Your task to perform on an android device: Open Google Chrome and click the shortcut for Amazon.com Image 0: 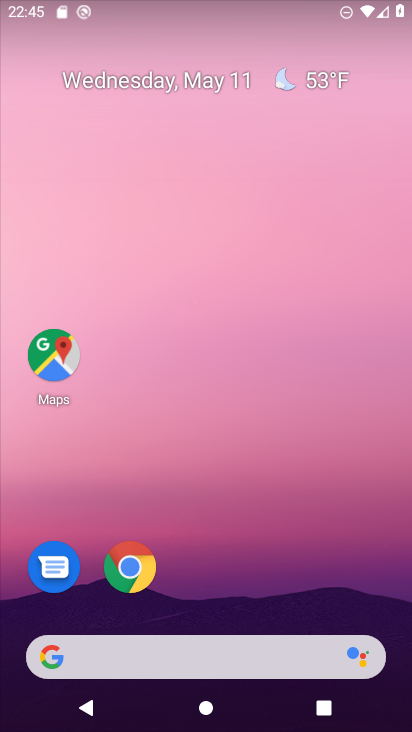
Step 0: click (135, 564)
Your task to perform on an android device: Open Google Chrome and click the shortcut for Amazon.com Image 1: 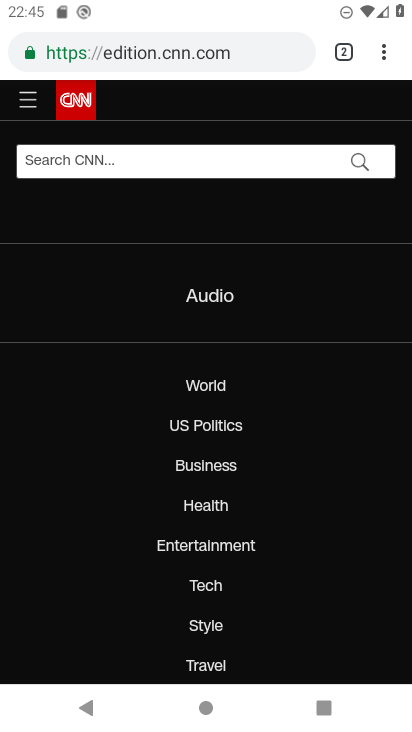
Step 1: click (386, 55)
Your task to perform on an android device: Open Google Chrome and click the shortcut for Amazon.com Image 2: 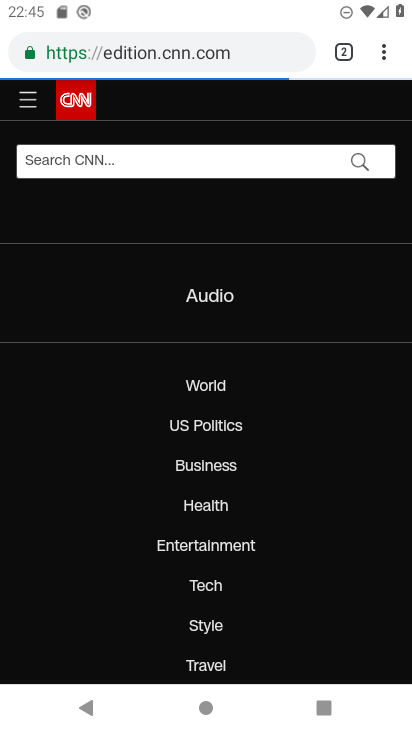
Step 2: click (192, 174)
Your task to perform on an android device: Open Google Chrome and click the shortcut for Amazon.com Image 3: 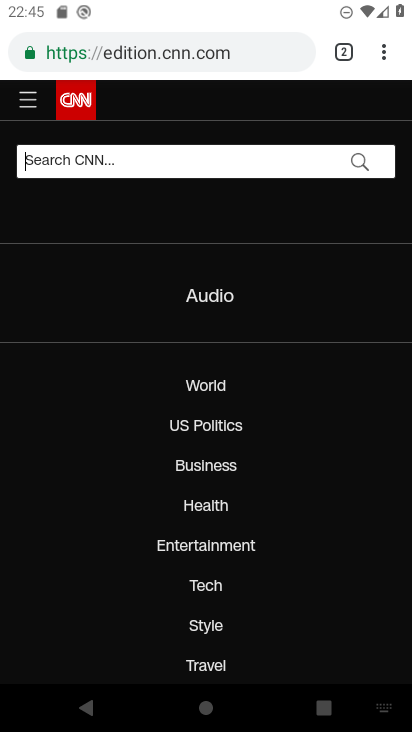
Step 3: click (383, 42)
Your task to perform on an android device: Open Google Chrome and click the shortcut for Amazon.com Image 4: 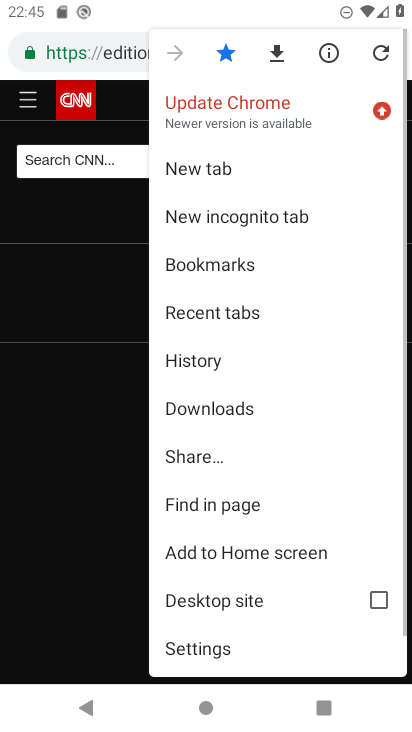
Step 4: click (220, 180)
Your task to perform on an android device: Open Google Chrome and click the shortcut for Amazon.com Image 5: 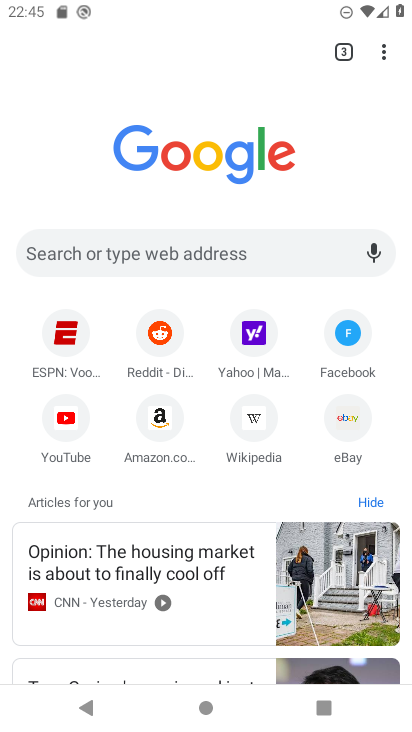
Step 5: click (165, 423)
Your task to perform on an android device: Open Google Chrome and click the shortcut for Amazon.com Image 6: 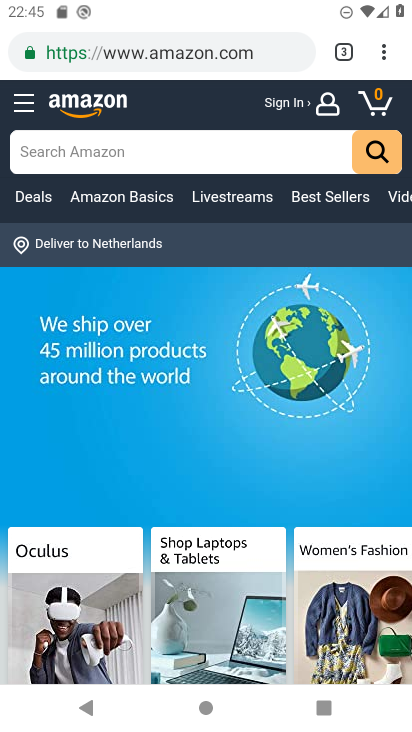
Step 6: task complete